Your task to perform on an android device: turn on the 12-hour format for clock Image 0: 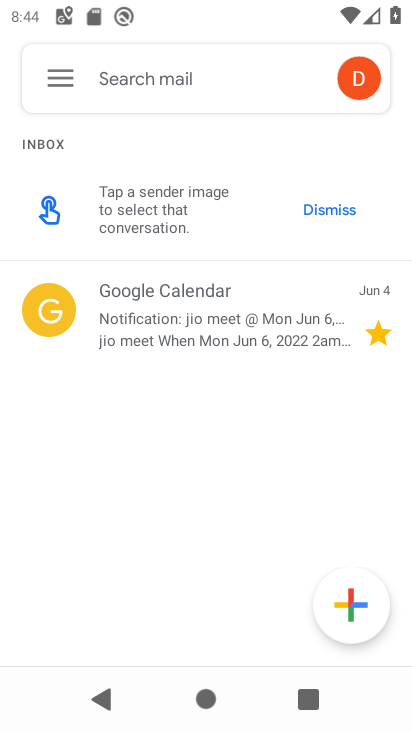
Step 0: press home button
Your task to perform on an android device: turn on the 12-hour format for clock Image 1: 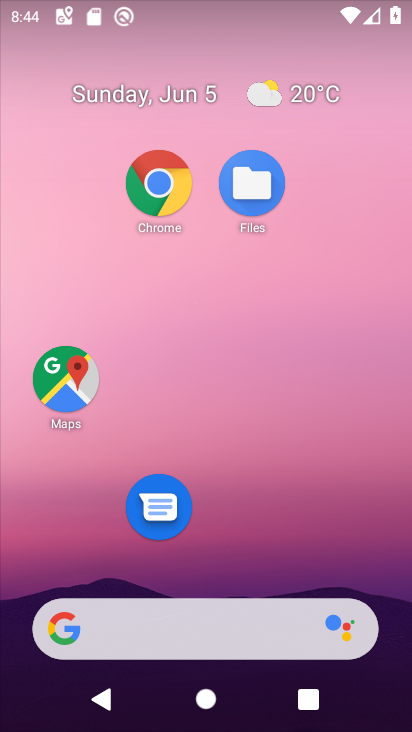
Step 1: drag from (202, 582) to (207, 36)
Your task to perform on an android device: turn on the 12-hour format for clock Image 2: 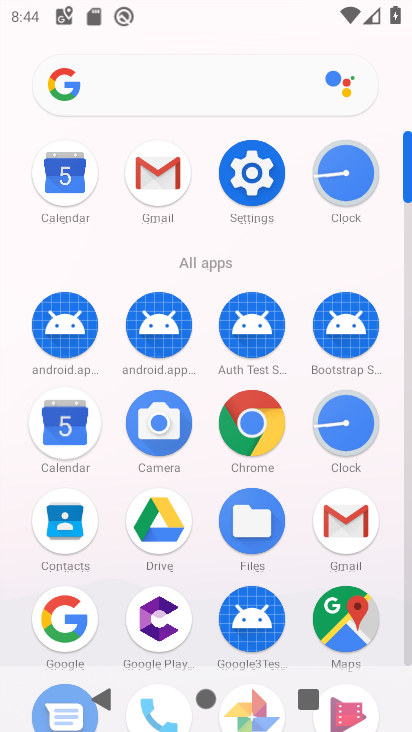
Step 2: click (345, 423)
Your task to perform on an android device: turn on the 12-hour format for clock Image 3: 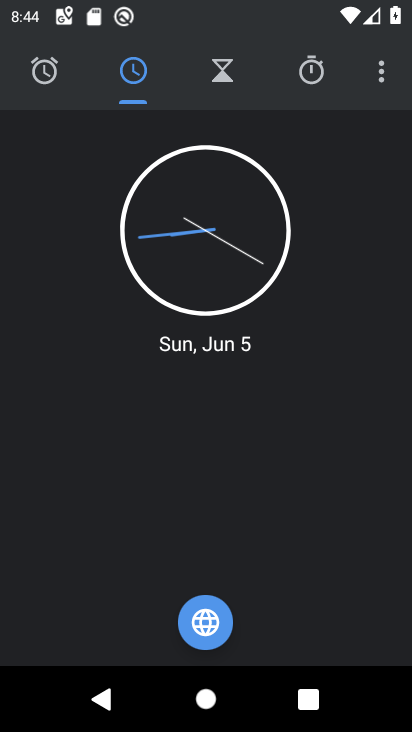
Step 3: click (380, 81)
Your task to perform on an android device: turn on the 12-hour format for clock Image 4: 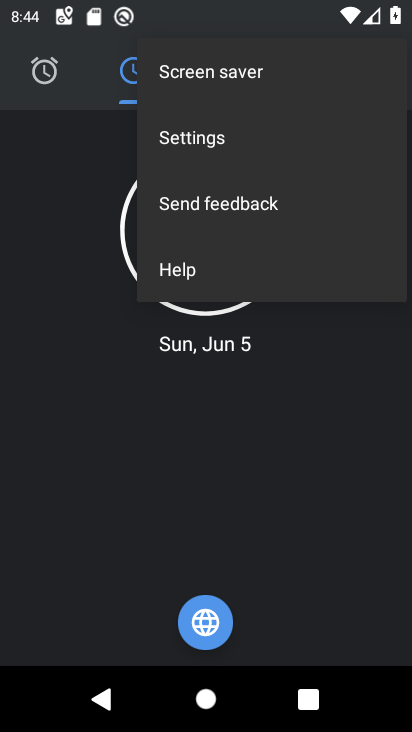
Step 4: click (206, 143)
Your task to perform on an android device: turn on the 12-hour format for clock Image 5: 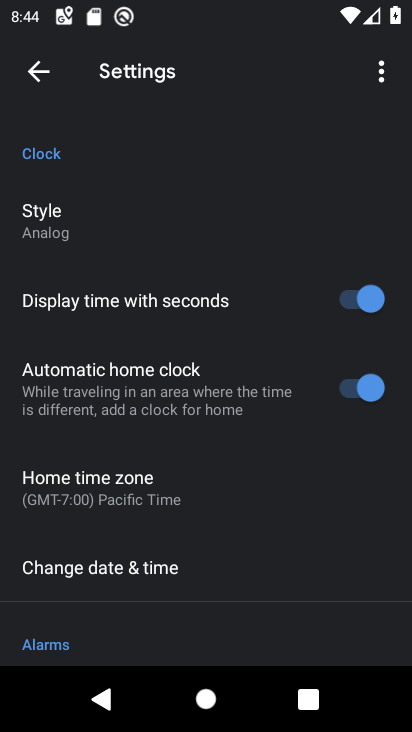
Step 5: click (105, 570)
Your task to perform on an android device: turn on the 12-hour format for clock Image 6: 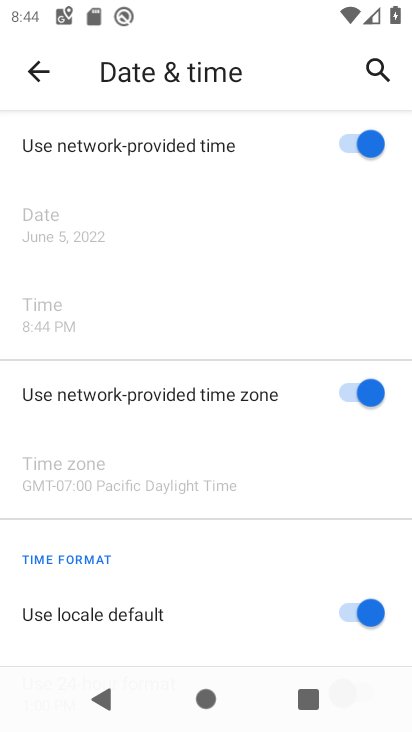
Step 6: drag from (105, 570) to (92, 45)
Your task to perform on an android device: turn on the 12-hour format for clock Image 7: 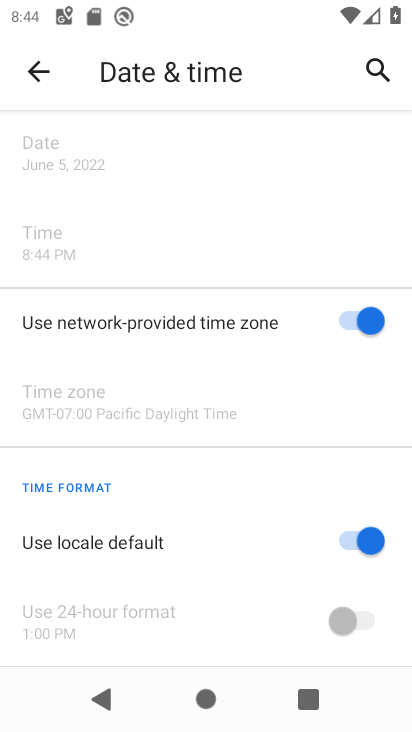
Step 7: click (361, 551)
Your task to perform on an android device: turn on the 12-hour format for clock Image 8: 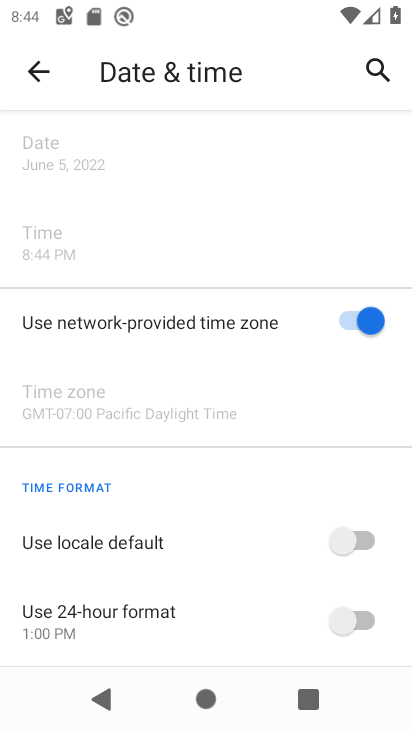
Step 8: task complete